Your task to perform on an android device: Open calendar and show me the first week of next month Image 0: 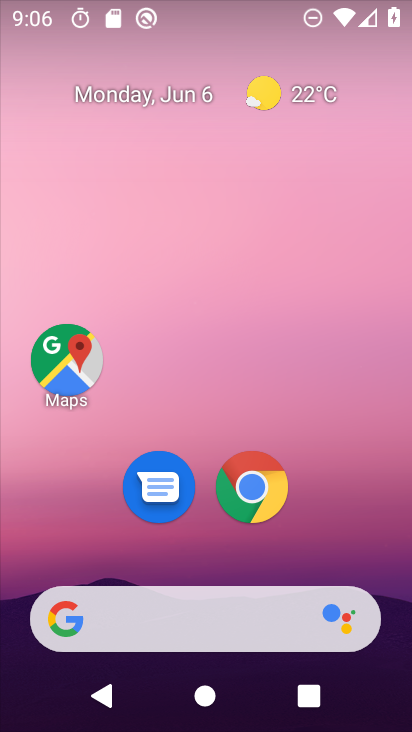
Step 0: drag from (391, 619) to (256, 15)
Your task to perform on an android device: Open calendar and show me the first week of next month Image 1: 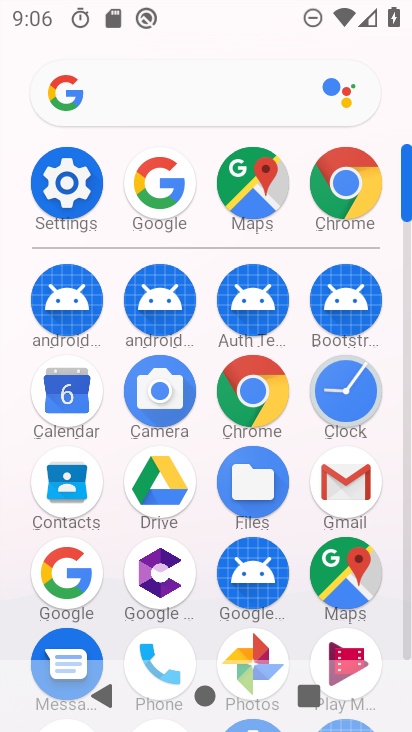
Step 1: click (50, 413)
Your task to perform on an android device: Open calendar and show me the first week of next month Image 2: 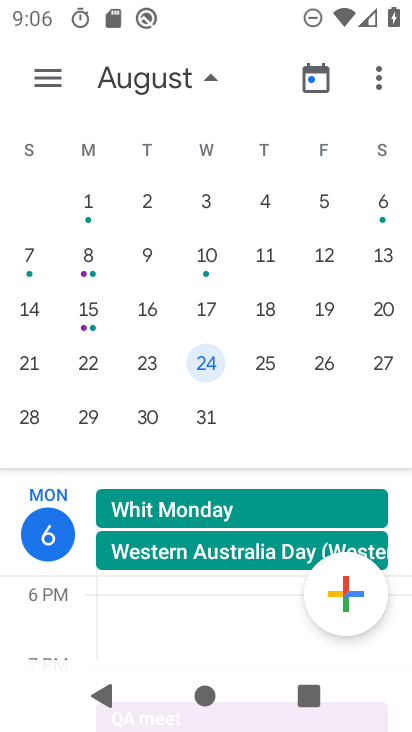
Step 2: click (137, 72)
Your task to perform on an android device: Open calendar and show me the first week of next month Image 3: 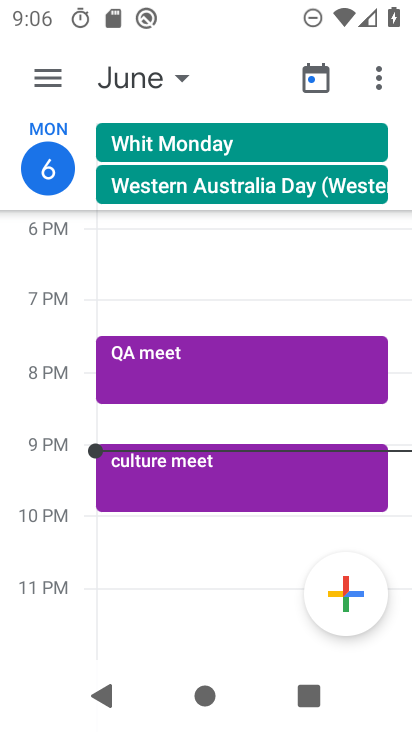
Step 3: click (137, 72)
Your task to perform on an android device: Open calendar and show me the first week of next month Image 4: 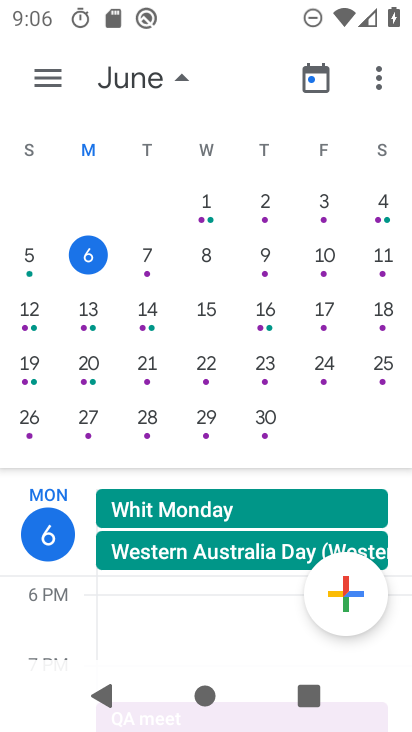
Step 4: drag from (349, 220) to (11, 274)
Your task to perform on an android device: Open calendar and show me the first week of next month Image 5: 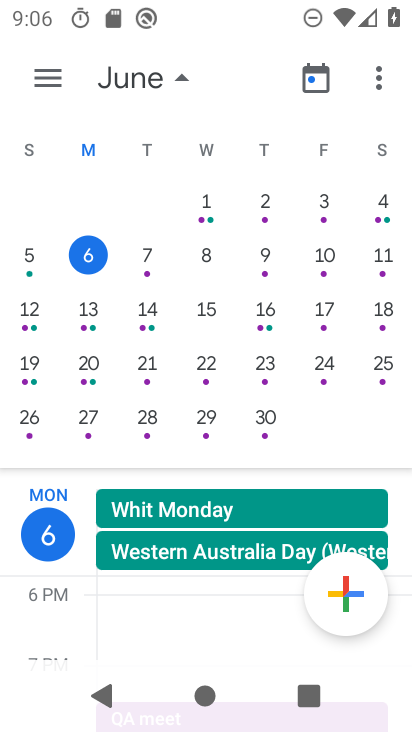
Step 5: drag from (378, 328) to (17, 313)
Your task to perform on an android device: Open calendar and show me the first week of next month Image 6: 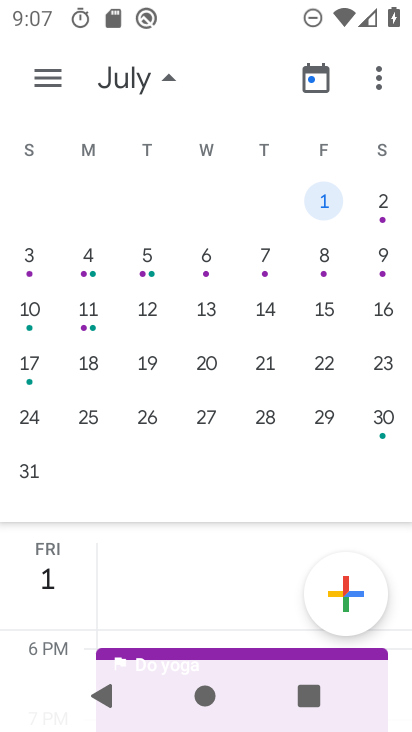
Step 6: click (85, 261)
Your task to perform on an android device: Open calendar and show me the first week of next month Image 7: 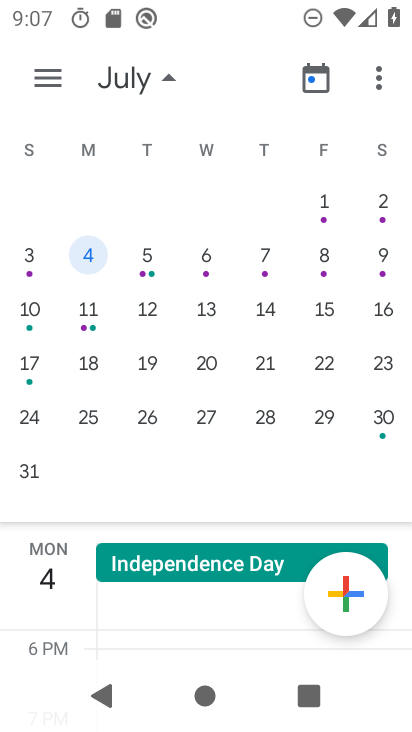
Step 7: task complete